Your task to perform on an android device: Open settings Image 0: 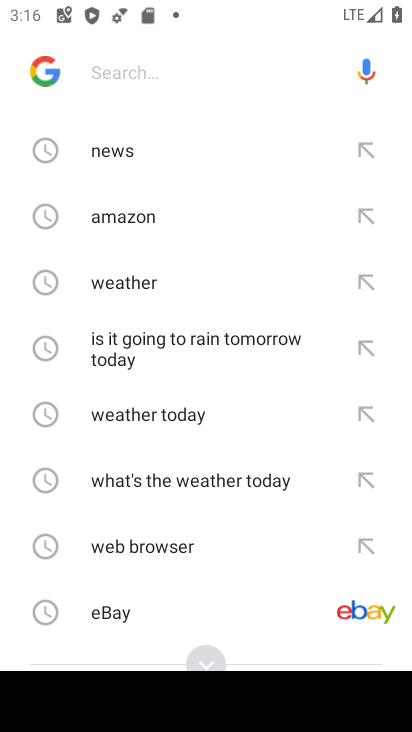
Step 0: press home button
Your task to perform on an android device: Open settings Image 1: 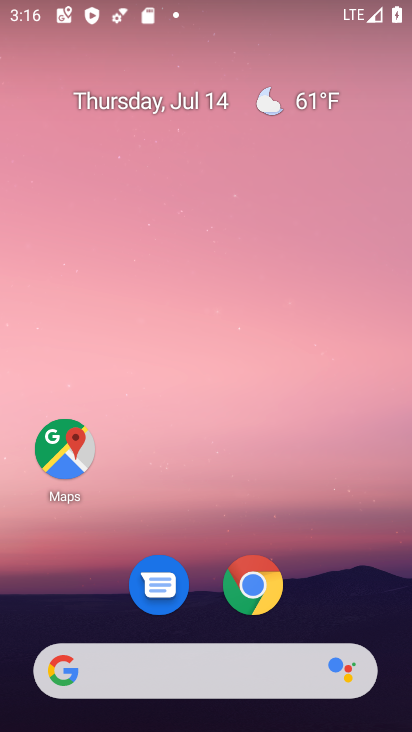
Step 1: drag from (325, 604) to (332, 21)
Your task to perform on an android device: Open settings Image 2: 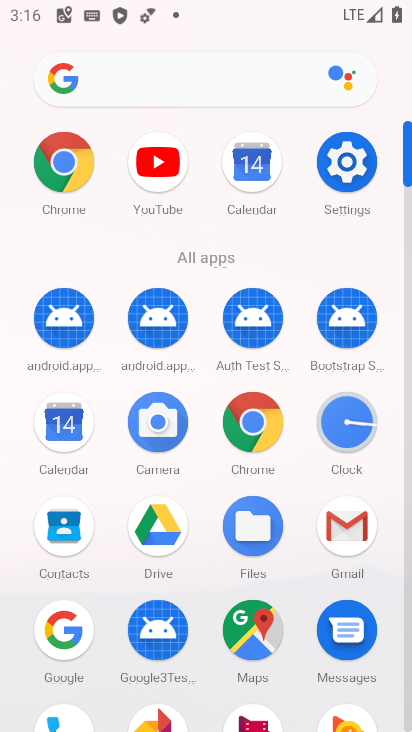
Step 2: click (344, 160)
Your task to perform on an android device: Open settings Image 3: 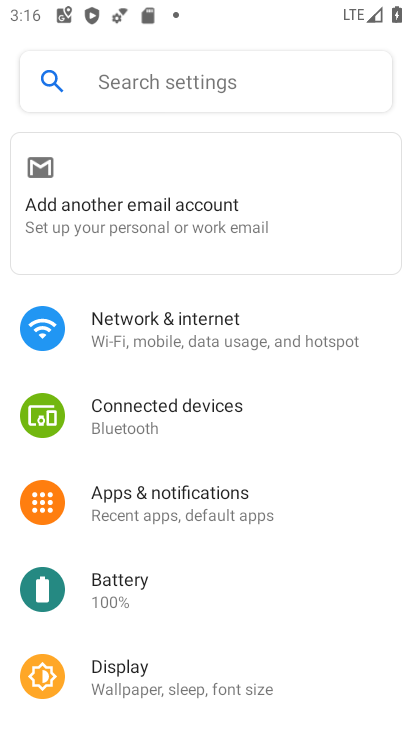
Step 3: task complete